Your task to perform on an android device: Open Google Chrome Image 0: 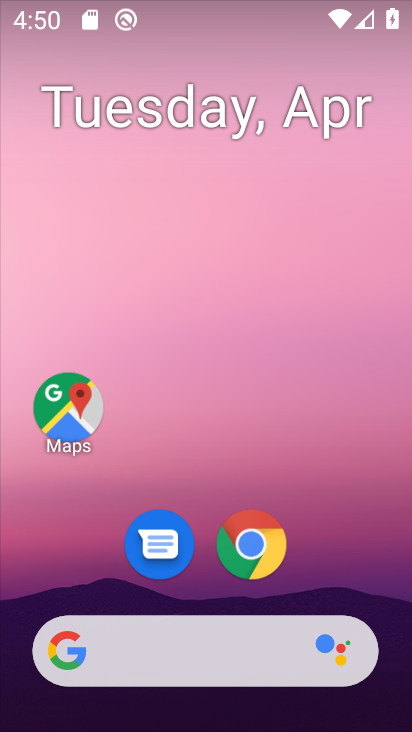
Step 0: drag from (210, 653) to (289, 301)
Your task to perform on an android device: Open Google Chrome Image 1: 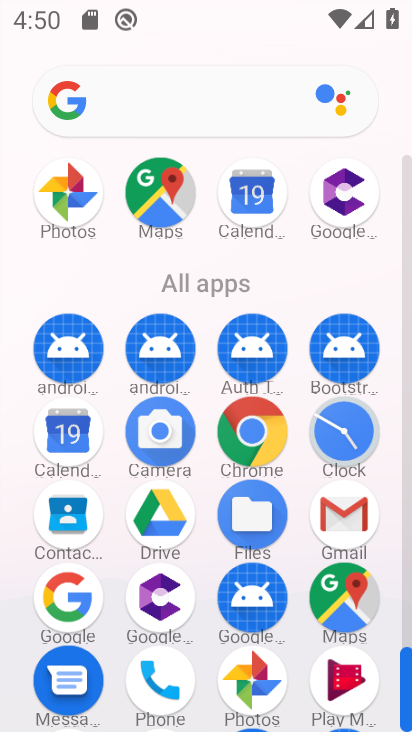
Step 1: click (255, 454)
Your task to perform on an android device: Open Google Chrome Image 2: 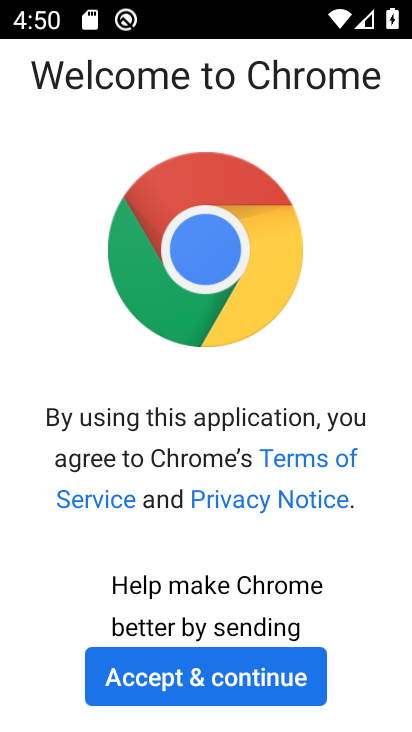
Step 2: click (257, 681)
Your task to perform on an android device: Open Google Chrome Image 3: 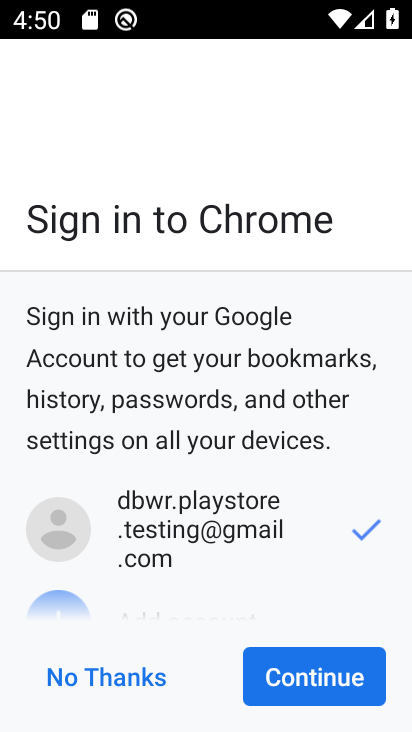
Step 3: click (290, 670)
Your task to perform on an android device: Open Google Chrome Image 4: 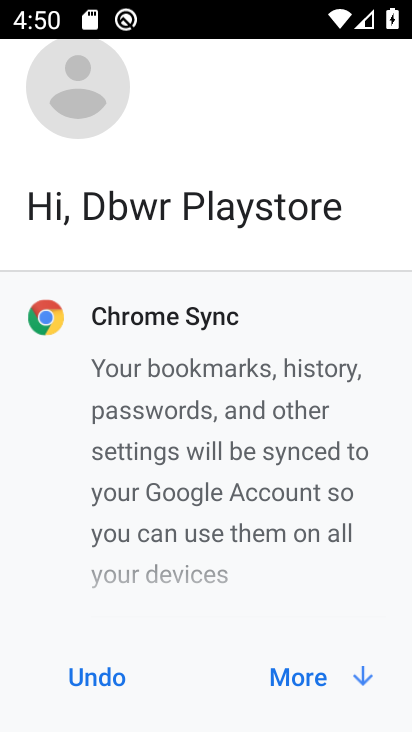
Step 4: click (311, 677)
Your task to perform on an android device: Open Google Chrome Image 5: 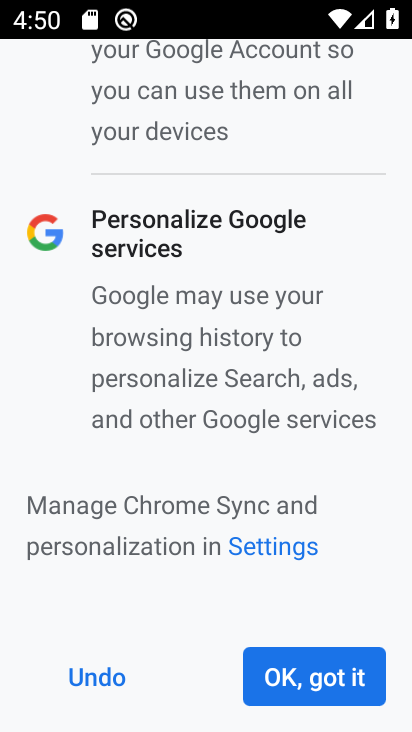
Step 5: click (351, 672)
Your task to perform on an android device: Open Google Chrome Image 6: 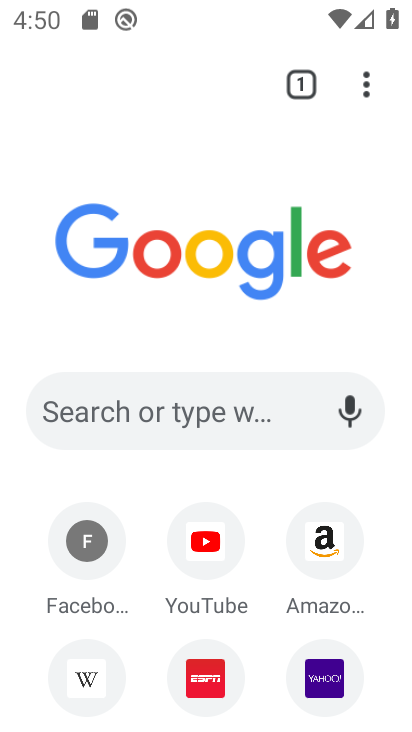
Step 6: task complete